Your task to perform on an android device: Open Google Image 0: 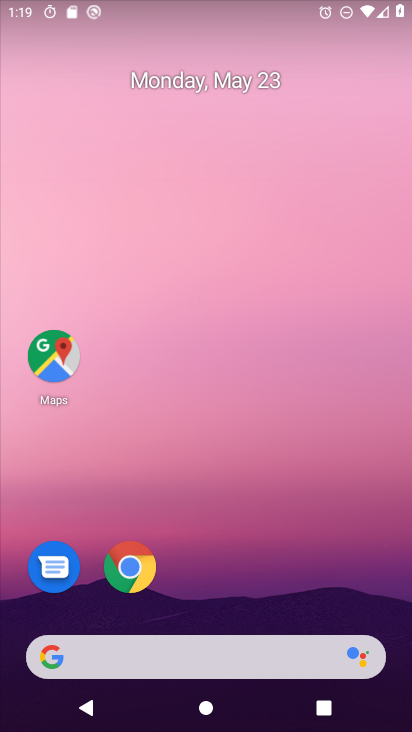
Step 0: click (187, 654)
Your task to perform on an android device: Open Google Image 1: 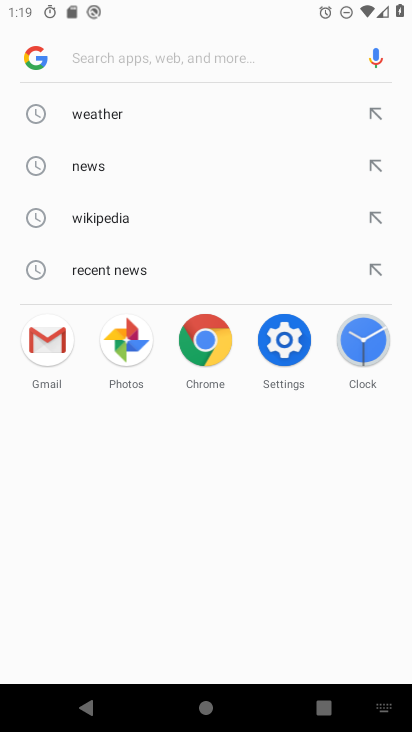
Step 1: task complete